Your task to perform on an android device: turn off priority inbox in the gmail app Image 0: 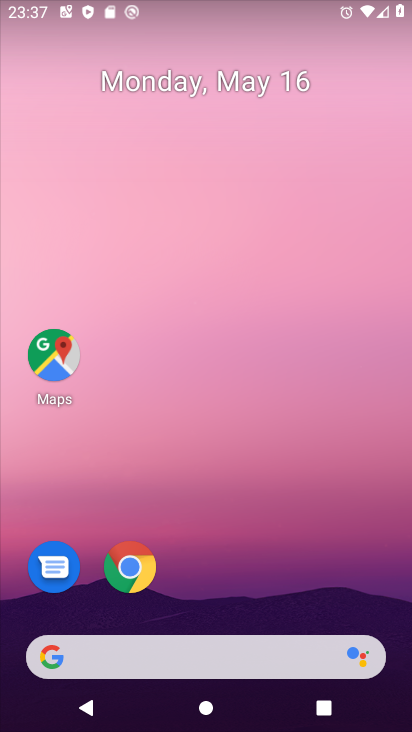
Step 0: drag from (256, 499) to (154, 69)
Your task to perform on an android device: turn off priority inbox in the gmail app Image 1: 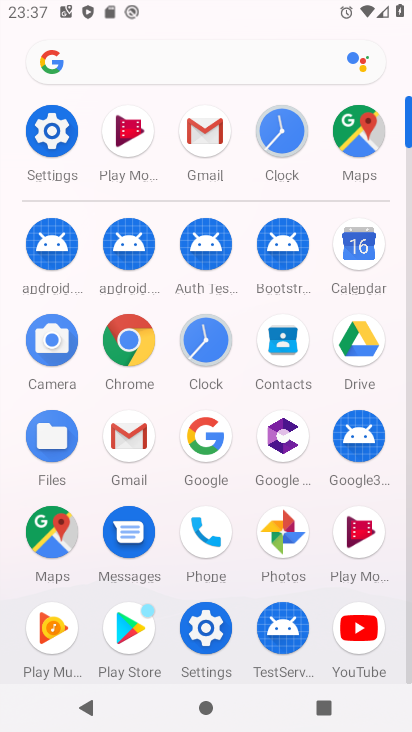
Step 1: click (198, 137)
Your task to perform on an android device: turn off priority inbox in the gmail app Image 2: 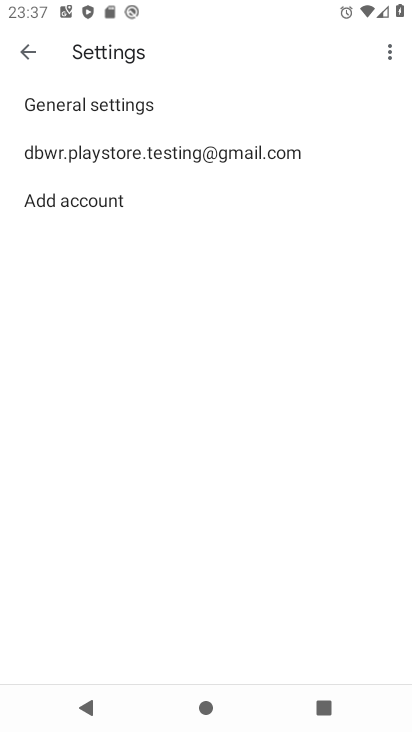
Step 2: click (23, 52)
Your task to perform on an android device: turn off priority inbox in the gmail app Image 3: 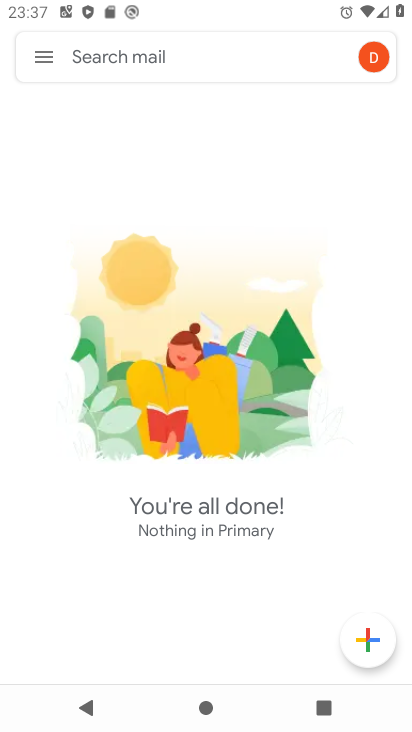
Step 3: click (41, 51)
Your task to perform on an android device: turn off priority inbox in the gmail app Image 4: 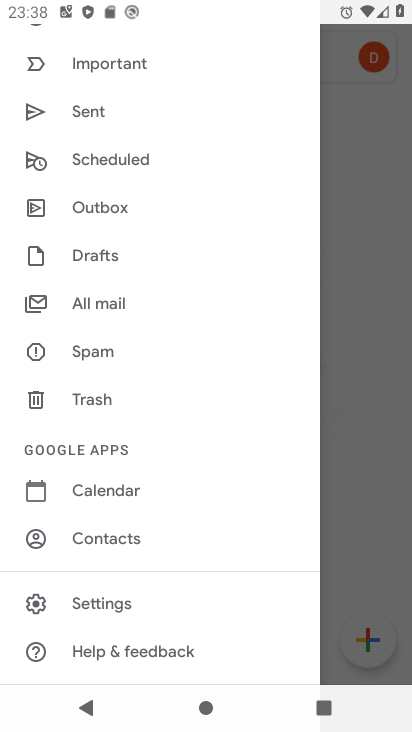
Step 4: drag from (157, 597) to (153, 358)
Your task to perform on an android device: turn off priority inbox in the gmail app Image 5: 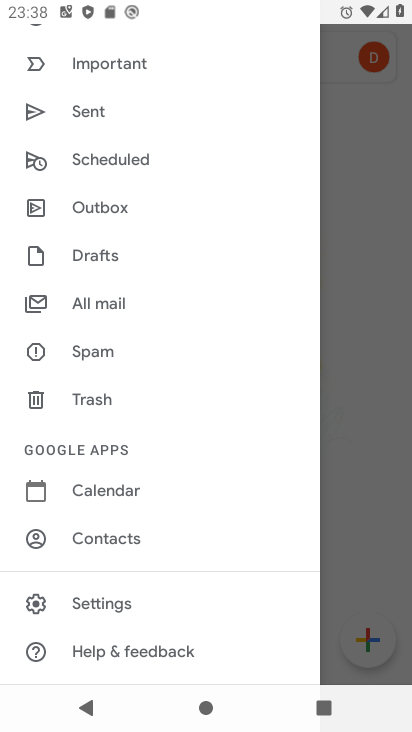
Step 5: click (103, 600)
Your task to perform on an android device: turn off priority inbox in the gmail app Image 6: 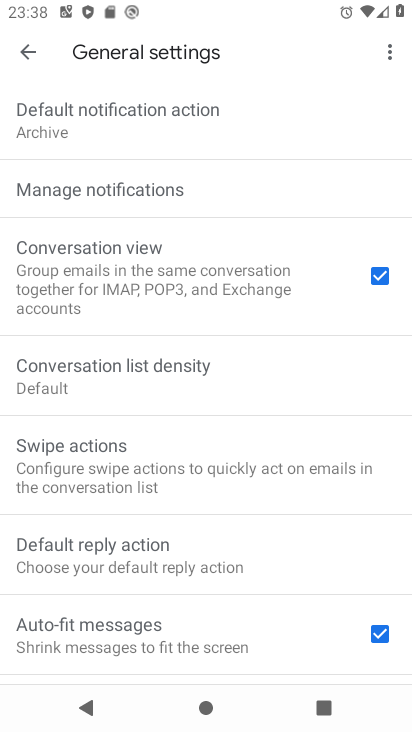
Step 6: drag from (192, 520) to (123, 272)
Your task to perform on an android device: turn off priority inbox in the gmail app Image 7: 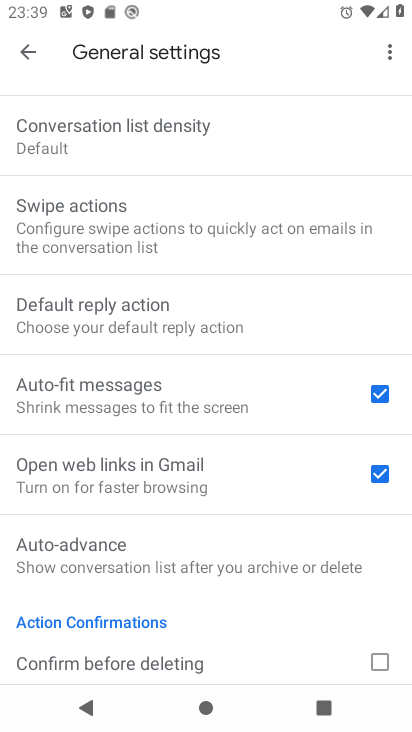
Step 7: drag from (191, 567) to (137, 302)
Your task to perform on an android device: turn off priority inbox in the gmail app Image 8: 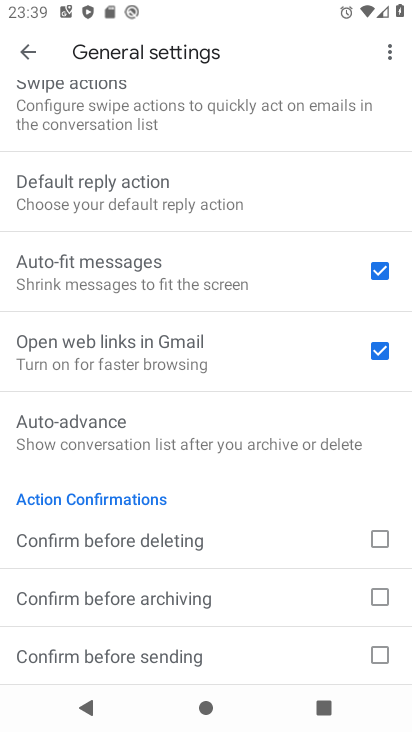
Step 8: drag from (183, 211) to (272, 577)
Your task to perform on an android device: turn off priority inbox in the gmail app Image 9: 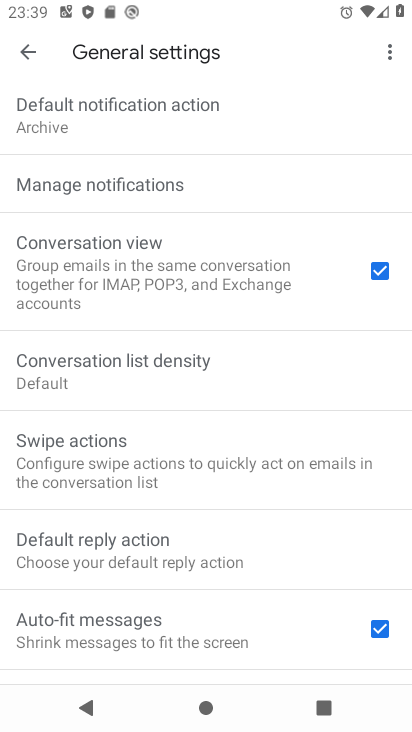
Step 9: click (24, 49)
Your task to perform on an android device: turn off priority inbox in the gmail app Image 10: 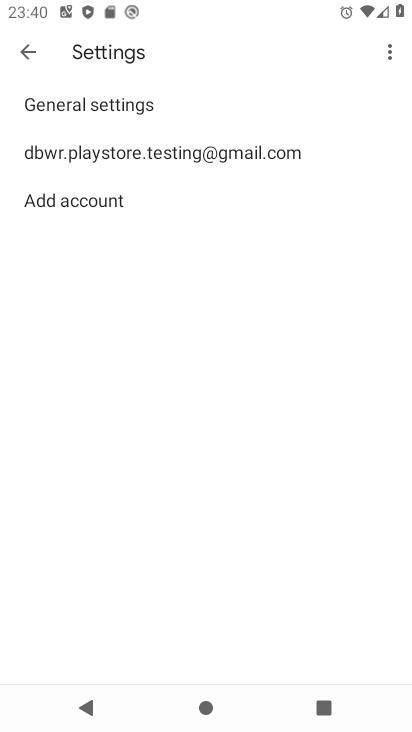
Step 10: click (80, 148)
Your task to perform on an android device: turn off priority inbox in the gmail app Image 11: 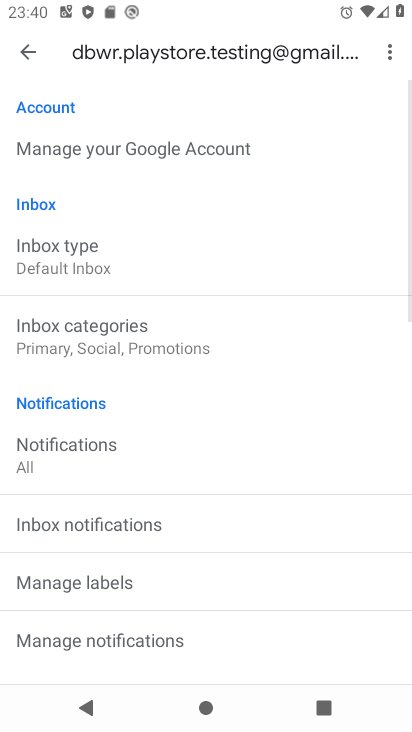
Step 11: click (60, 259)
Your task to perform on an android device: turn off priority inbox in the gmail app Image 12: 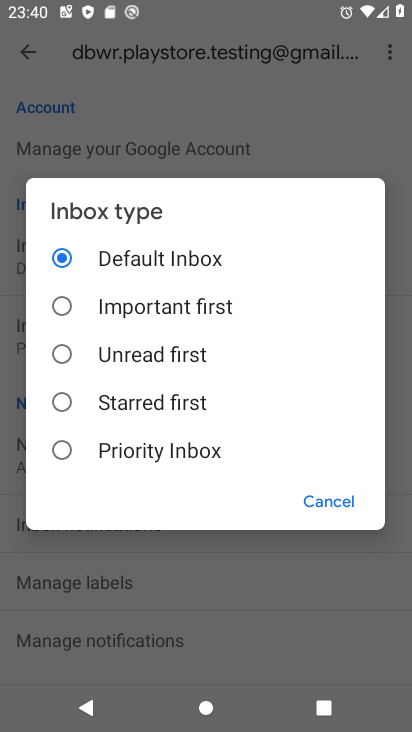
Step 12: task complete